Your task to perform on an android device: turn off location history Image 0: 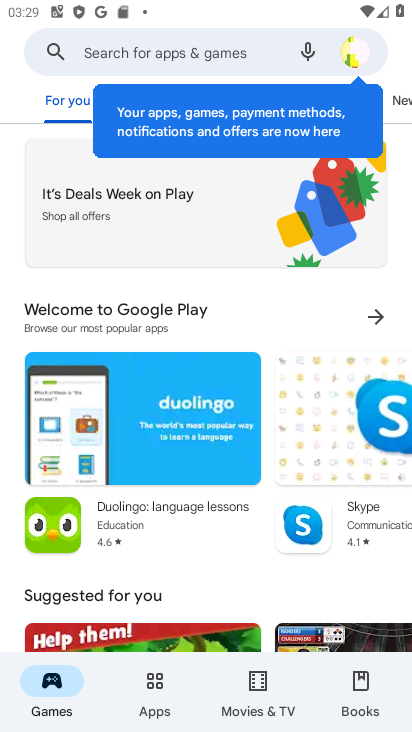
Step 0: press home button
Your task to perform on an android device: turn off location history Image 1: 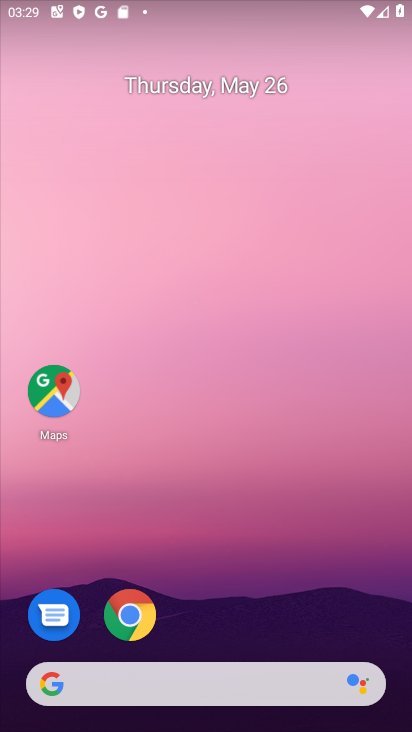
Step 1: drag from (227, 622) to (223, 73)
Your task to perform on an android device: turn off location history Image 2: 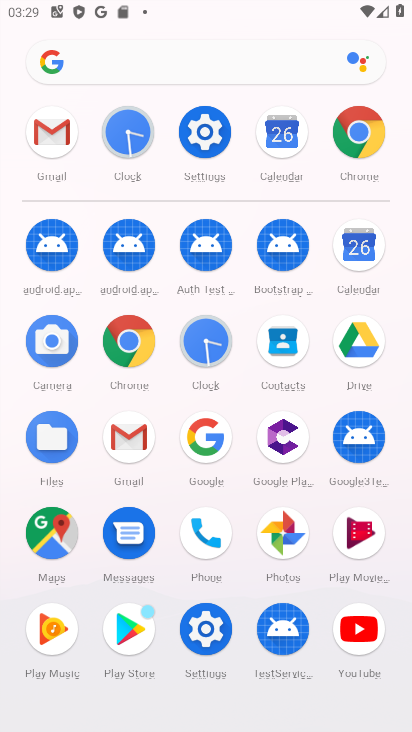
Step 2: click (210, 138)
Your task to perform on an android device: turn off location history Image 3: 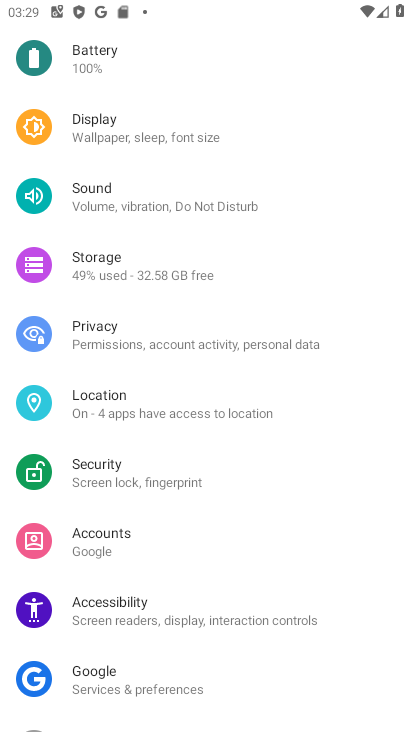
Step 3: click (101, 400)
Your task to perform on an android device: turn off location history Image 4: 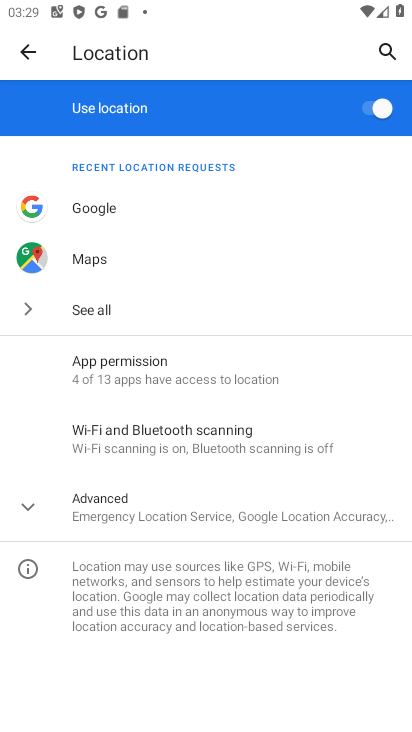
Step 4: click (114, 507)
Your task to perform on an android device: turn off location history Image 5: 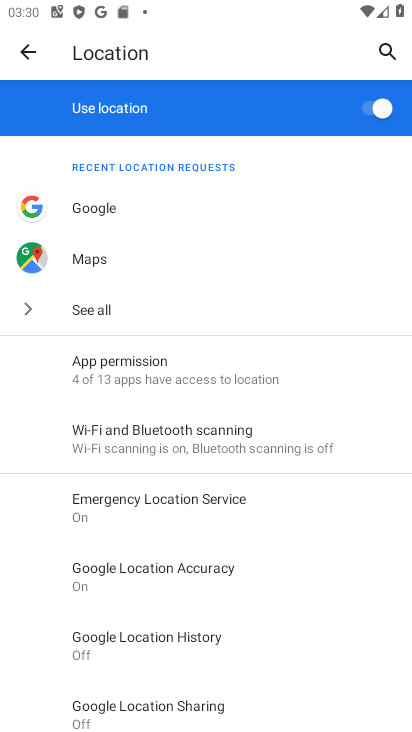
Step 5: click (162, 649)
Your task to perform on an android device: turn off location history Image 6: 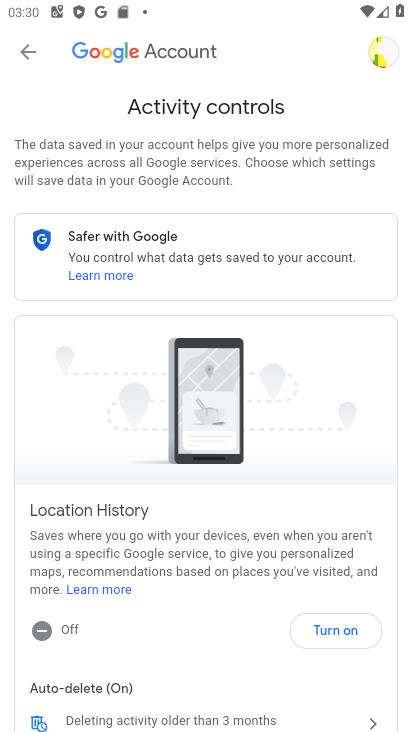
Step 6: task complete